Your task to perform on an android device: set the stopwatch Image 0: 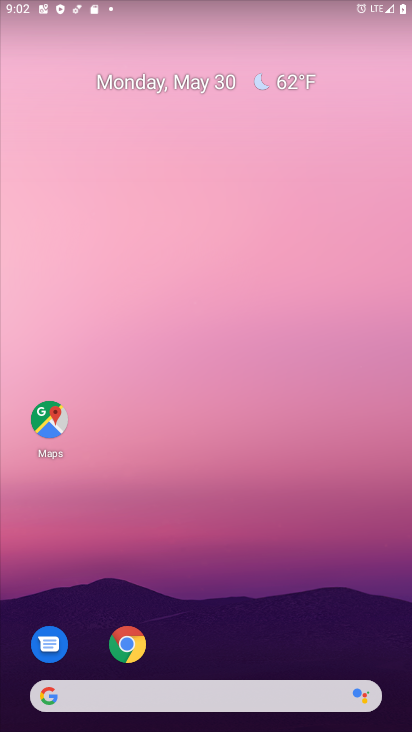
Step 0: drag from (391, 663) to (327, 229)
Your task to perform on an android device: set the stopwatch Image 1: 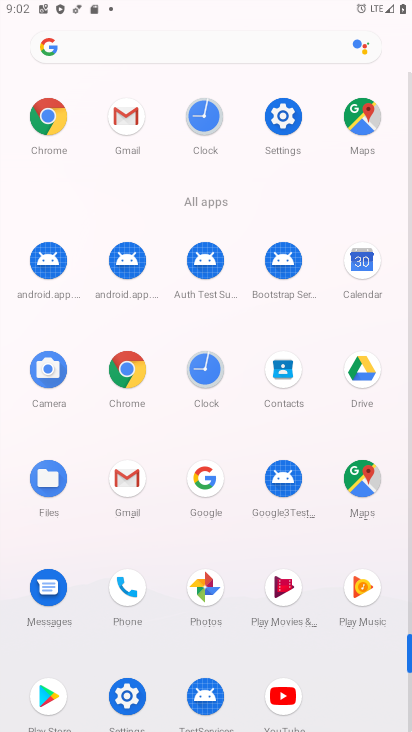
Step 1: click (205, 372)
Your task to perform on an android device: set the stopwatch Image 2: 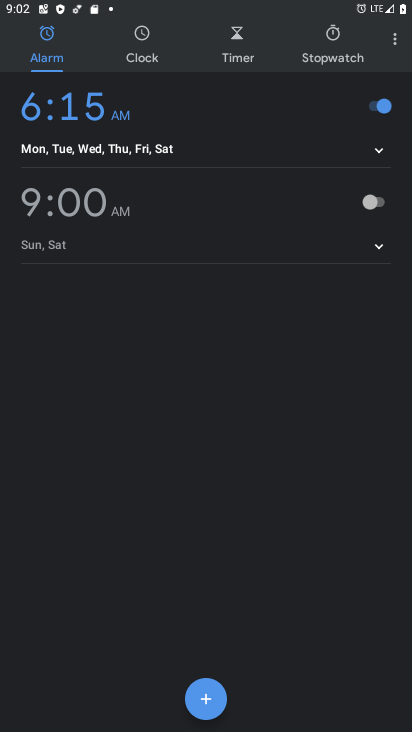
Step 2: click (335, 35)
Your task to perform on an android device: set the stopwatch Image 3: 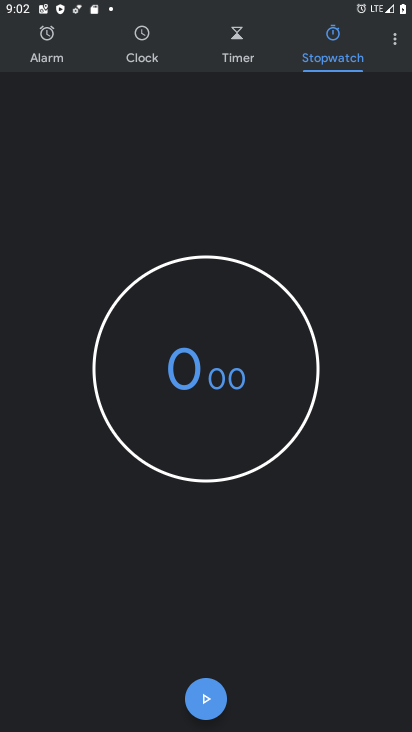
Step 3: task complete